Your task to perform on an android device: turn off airplane mode Image 0: 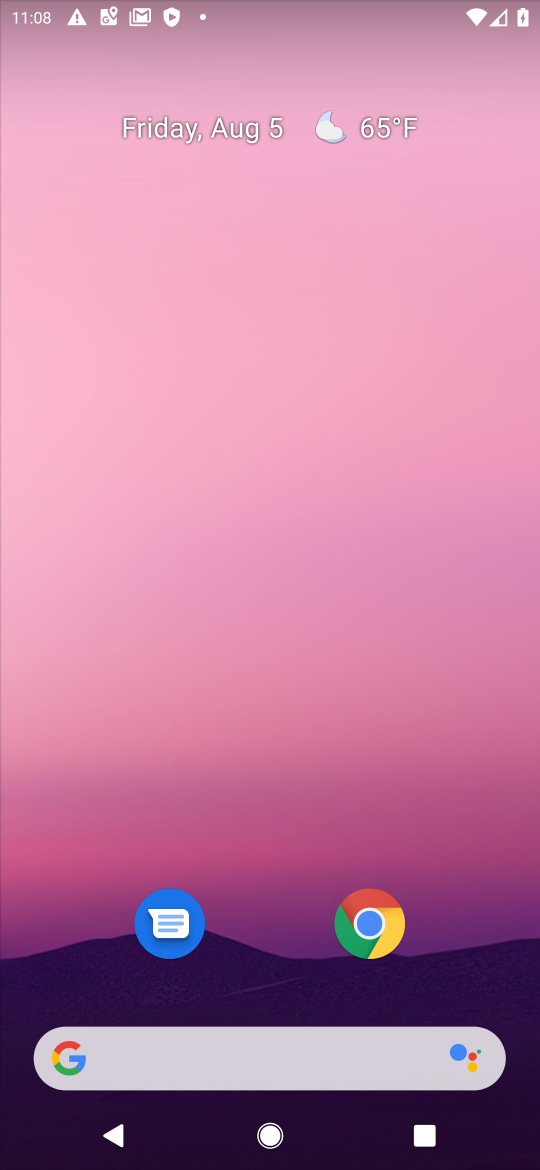
Step 0: drag from (310, 1053) to (216, 46)
Your task to perform on an android device: turn off airplane mode Image 1: 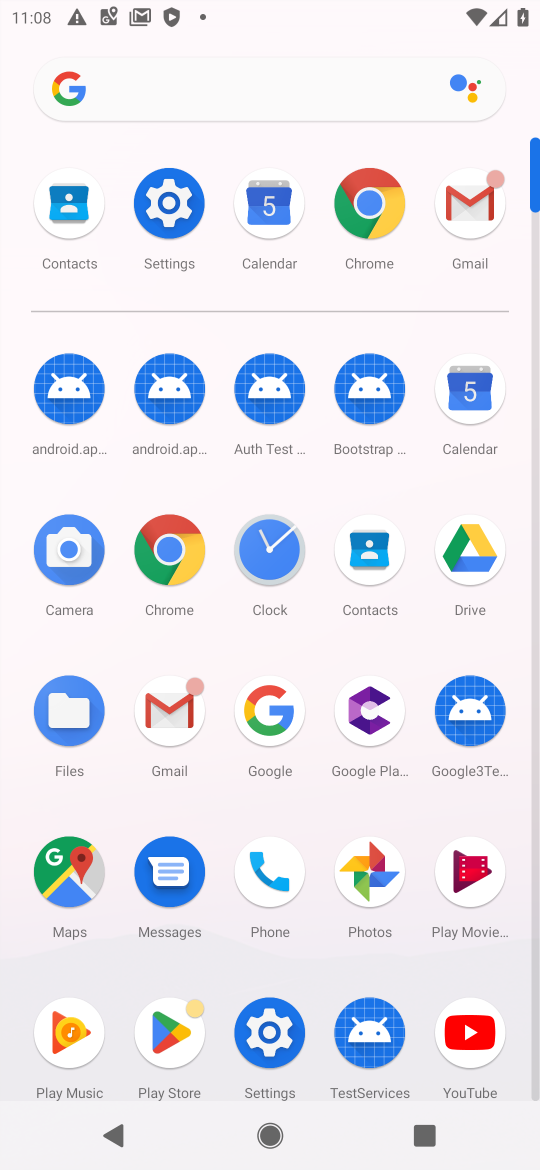
Step 1: click (163, 217)
Your task to perform on an android device: turn off airplane mode Image 2: 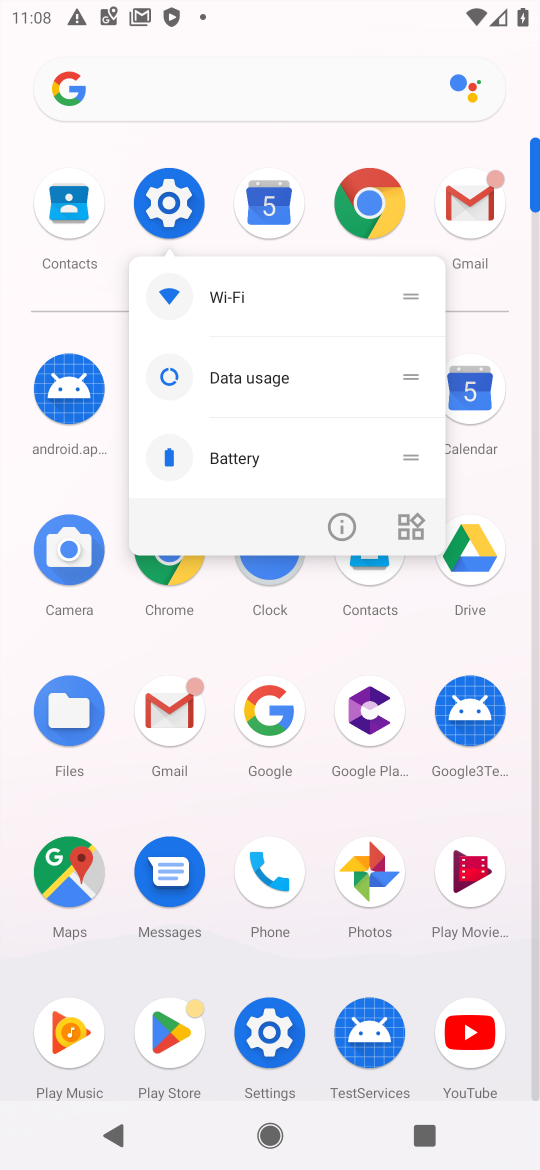
Step 2: click (163, 217)
Your task to perform on an android device: turn off airplane mode Image 3: 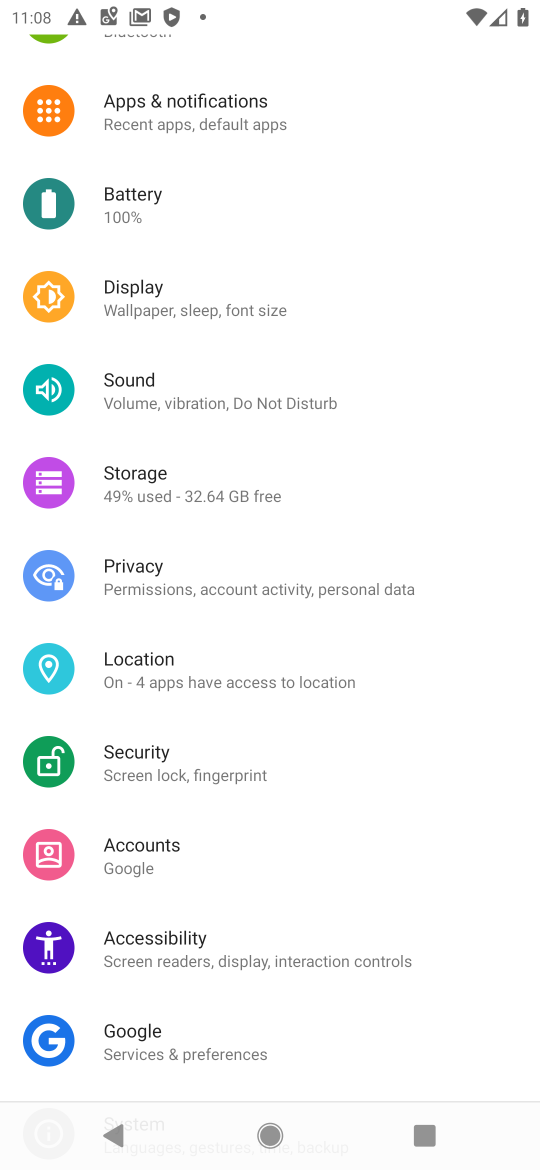
Step 3: drag from (180, 240) to (382, 839)
Your task to perform on an android device: turn off airplane mode Image 4: 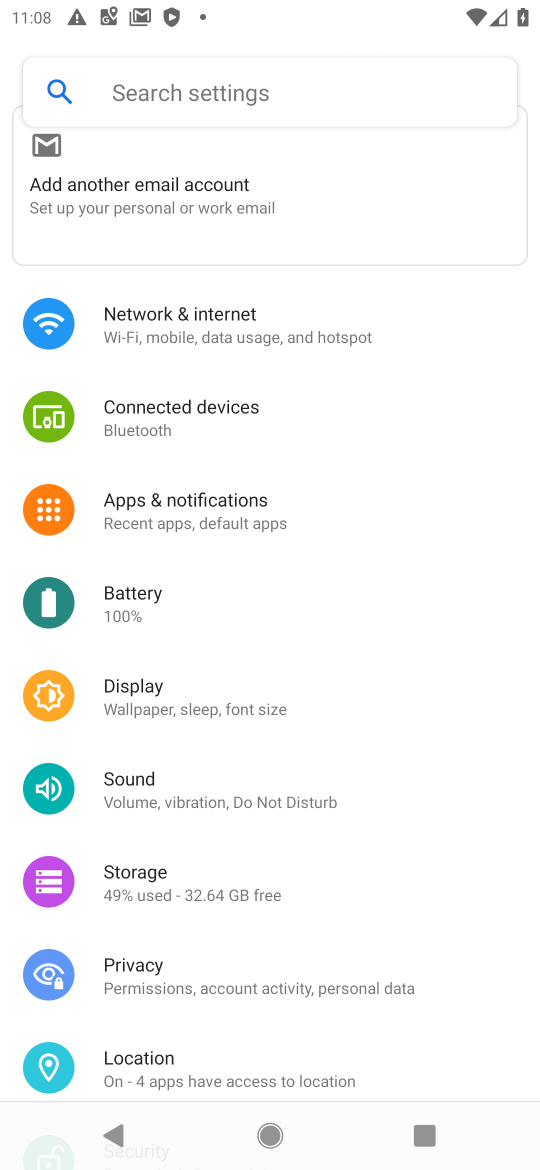
Step 4: click (228, 324)
Your task to perform on an android device: turn off airplane mode Image 5: 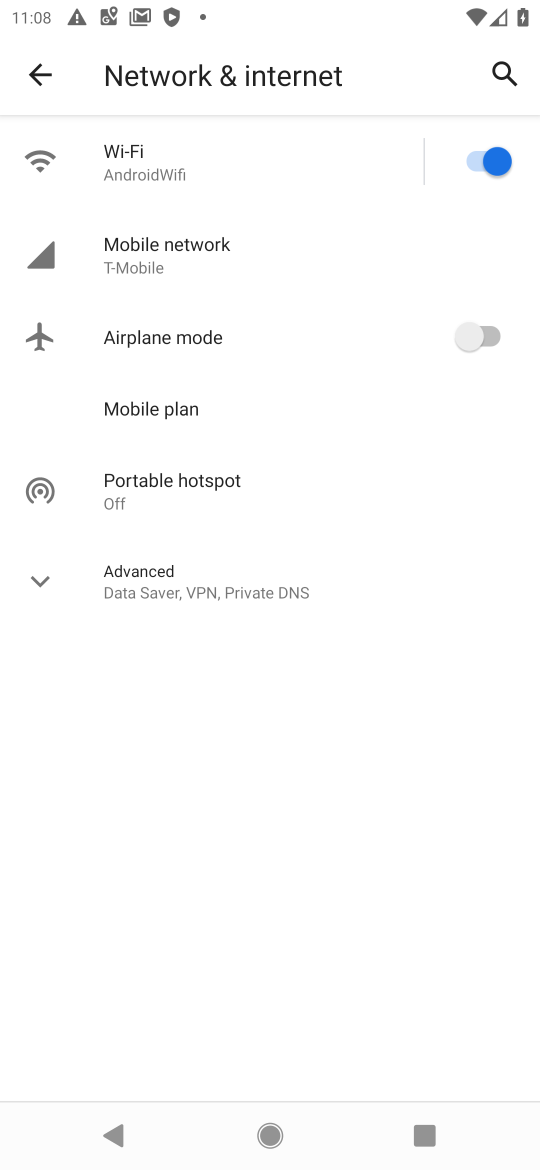
Step 5: task complete